Your task to perform on an android device: Open the map Image 0: 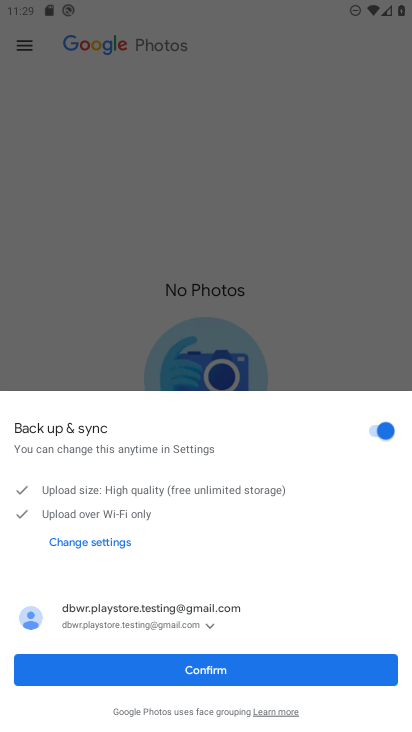
Step 0: press home button
Your task to perform on an android device: Open the map Image 1: 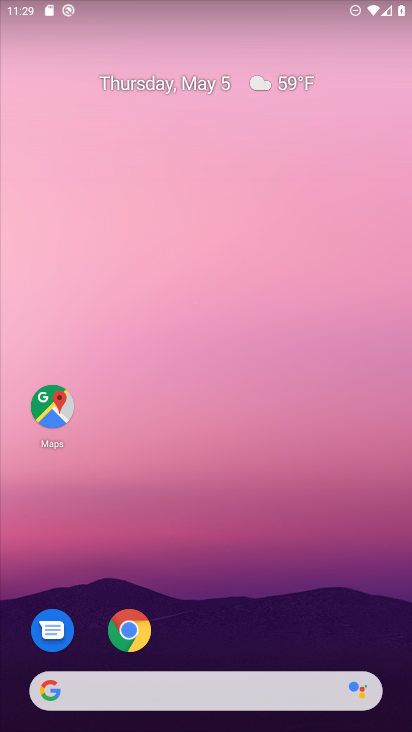
Step 1: click (53, 413)
Your task to perform on an android device: Open the map Image 2: 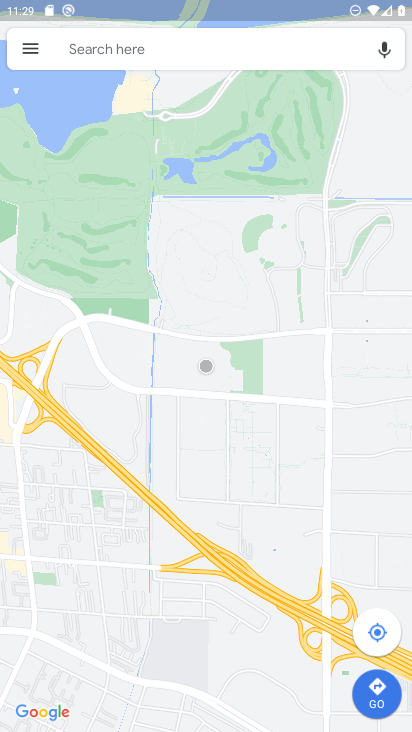
Step 2: task complete